Your task to perform on an android device: Open CNN.com Image 0: 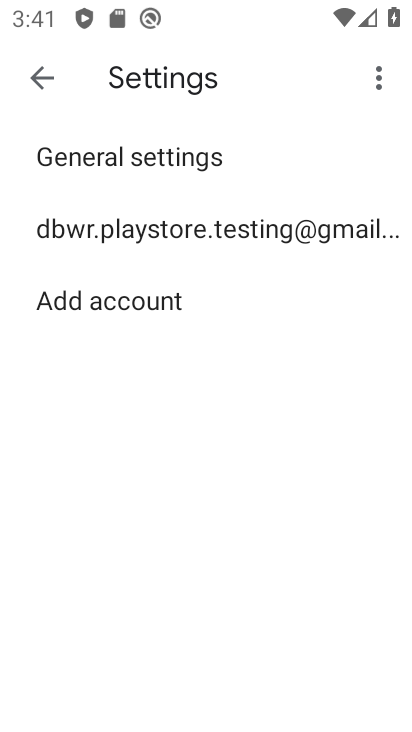
Step 0: click (32, 73)
Your task to perform on an android device: Open CNN.com Image 1: 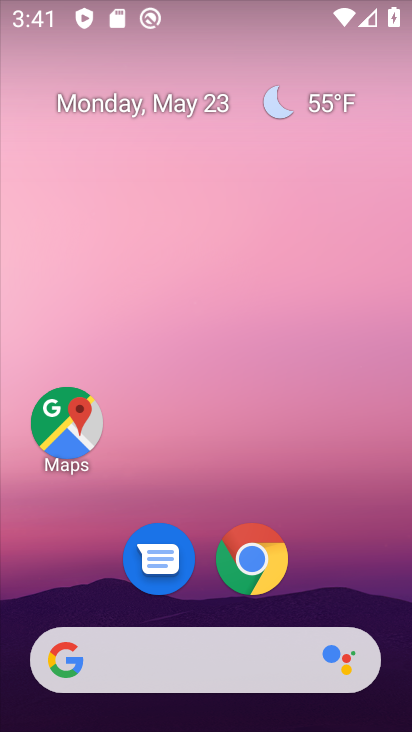
Step 1: drag from (360, 588) to (259, 4)
Your task to perform on an android device: Open CNN.com Image 2: 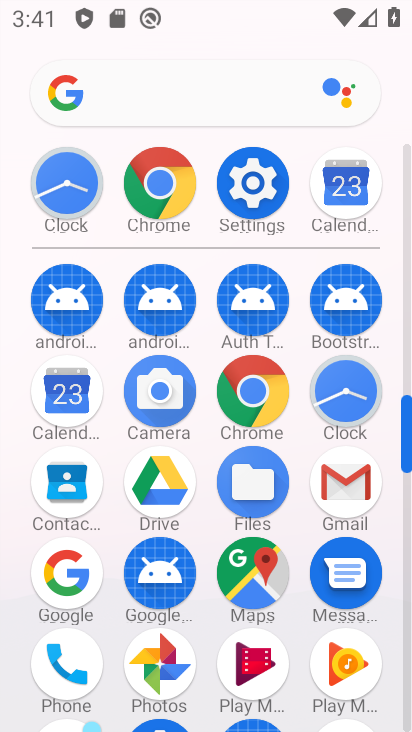
Step 2: click (160, 204)
Your task to perform on an android device: Open CNN.com Image 3: 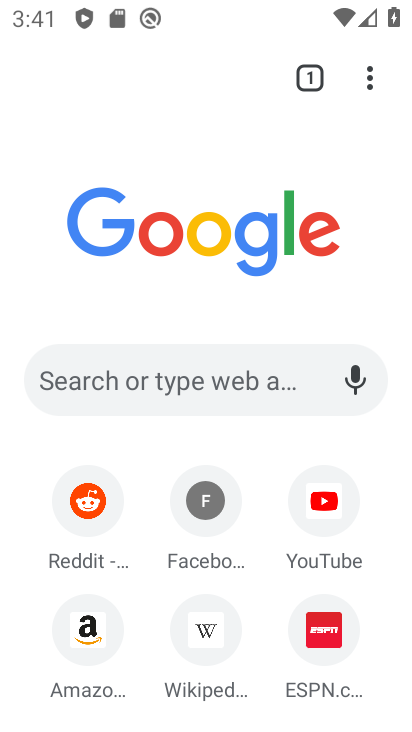
Step 3: click (86, 384)
Your task to perform on an android device: Open CNN.com Image 4: 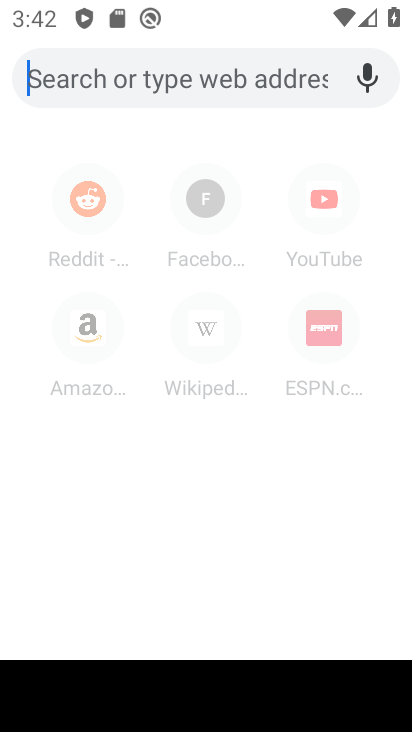
Step 4: type "cnn.com"
Your task to perform on an android device: Open CNN.com Image 5: 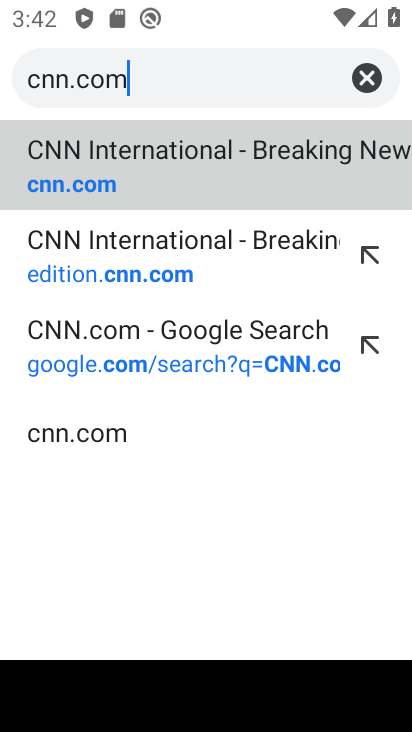
Step 5: click (72, 185)
Your task to perform on an android device: Open CNN.com Image 6: 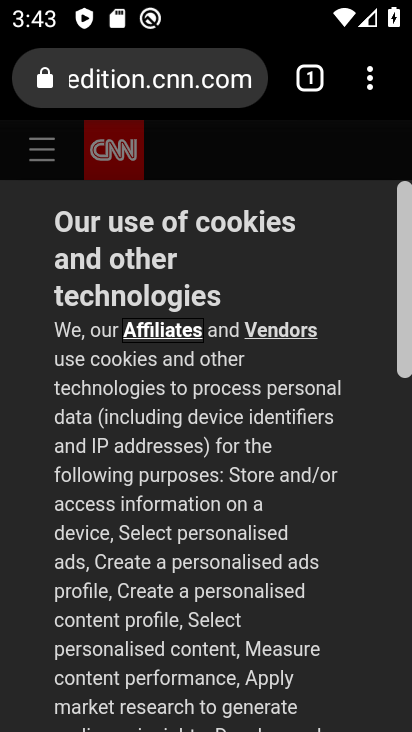
Step 6: task complete